Your task to perform on an android device: Open the map Image 0: 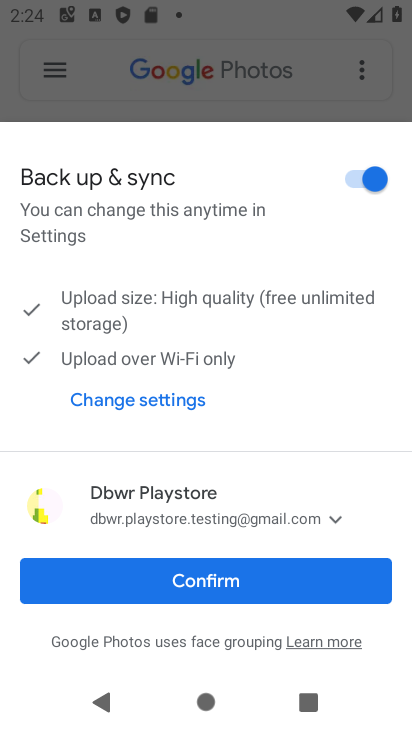
Step 0: press home button
Your task to perform on an android device: Open the map Image 1: 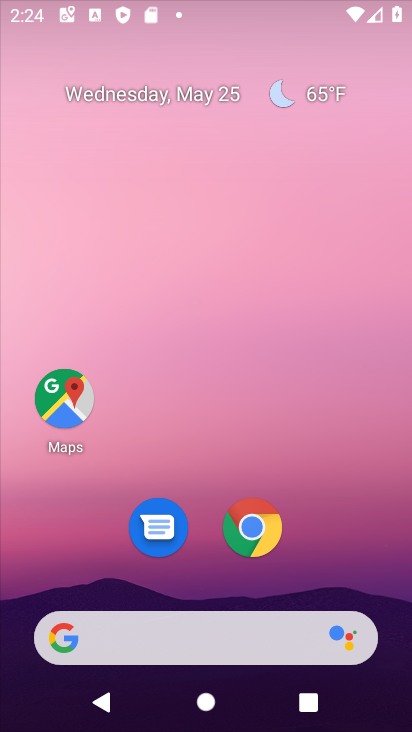
Step 1: drag from (307, 527) to (304, 64)
Your task to perform on an android device: Open the map Image 2: 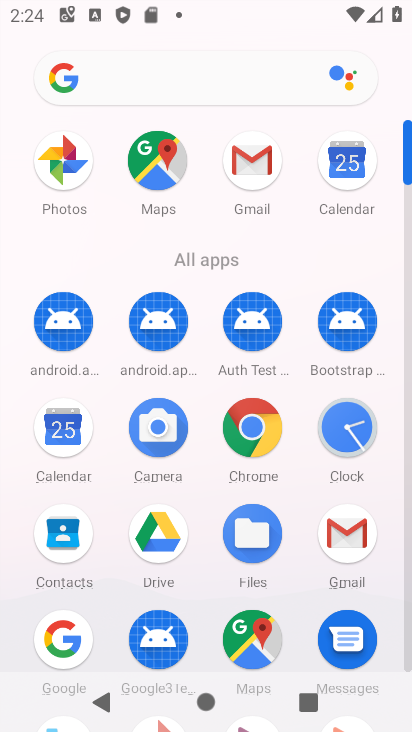
Step 2: click (251, 633)
Your task to perform on an android device: Open the map Image 3: 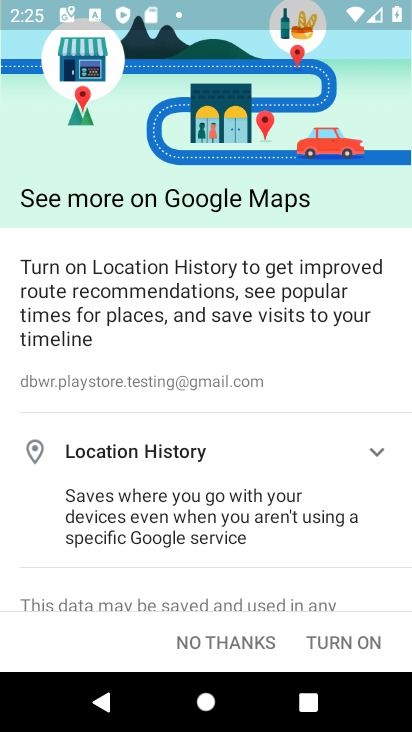
Step 3: click (238, 635)
Your task to perform on an android device: Open the map Image 4: 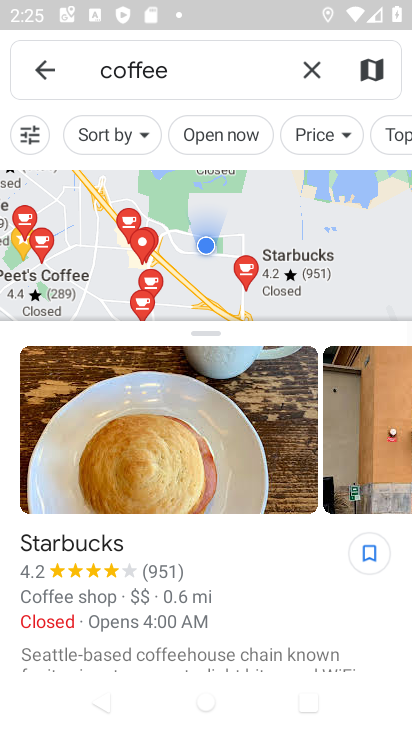
Step 4: task complete